Your task to perform on an android device: delete browsing data in the chrome app Image 0: 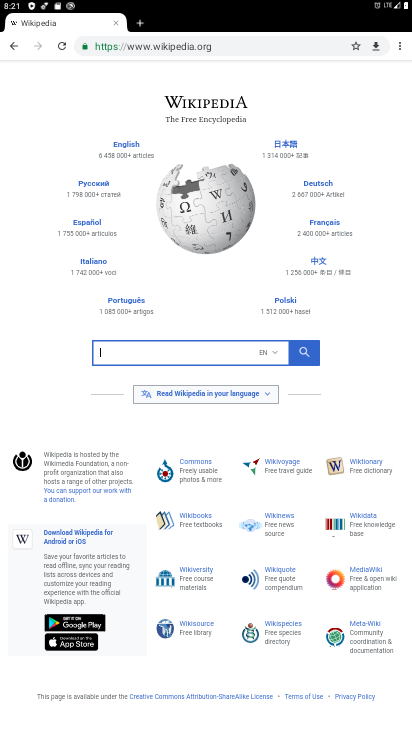
Step 0: press home button
Your task to perform on an android device: delete browsing data in the chrome app Image 1: 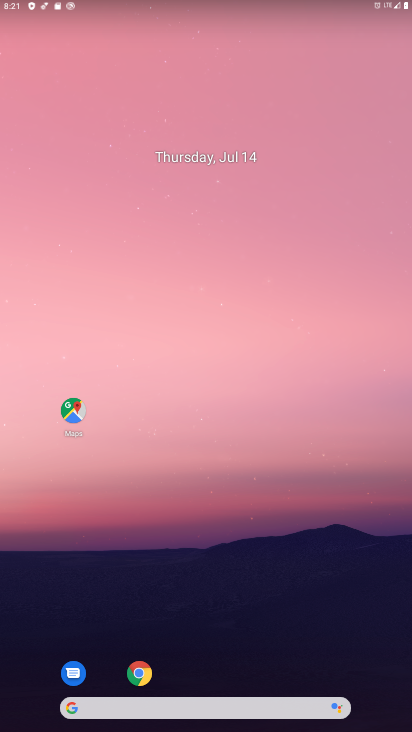
Step 1: click (142, 674)
Your task to perform on an android device: delete browsing data in the chrome app Image 2: 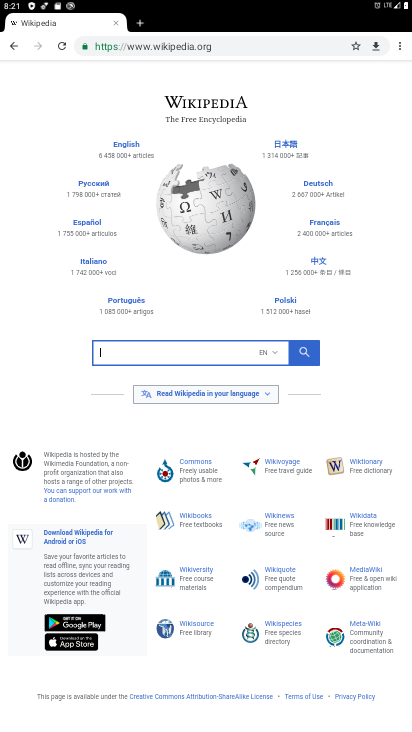
Step 2: click (400, 46)
Your task to perform on an android device: delete browsing data in the chrome app Image 3: 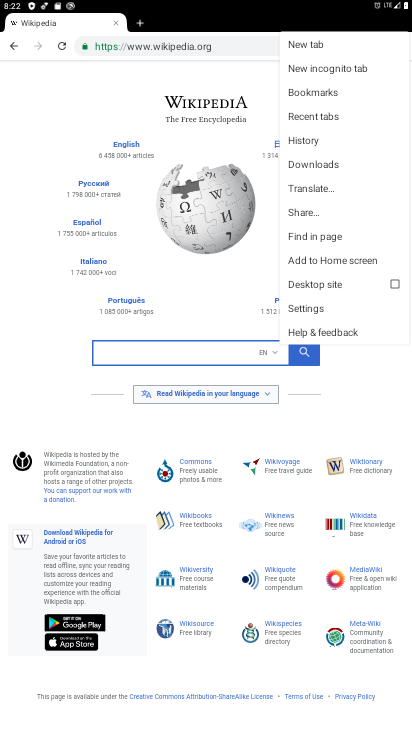
Step 3: click (319, 303)
Your task to perform on an android device: delete browsing data in the chrome app Image 4: 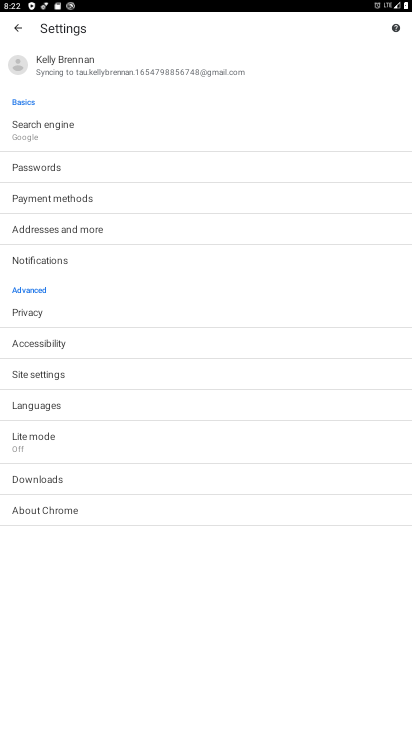
Step 4: click (35, 308)
Your task to perform on an android device: delete browsing data in the chrome app Image 5: 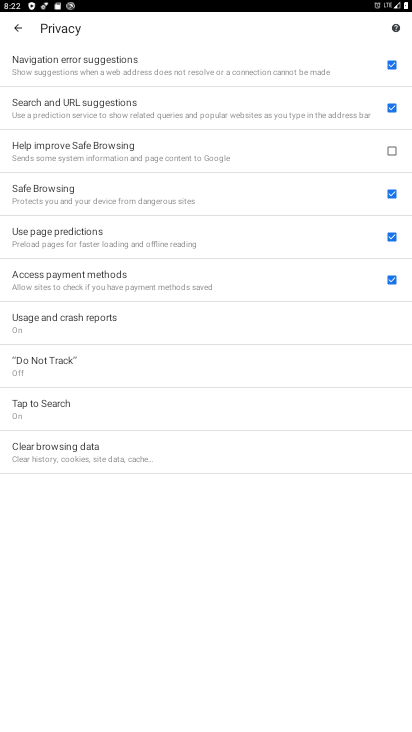
Step 5: click (56, 442)
Your task to perform on an android device: delete browsing data in the chrome app Image 6: 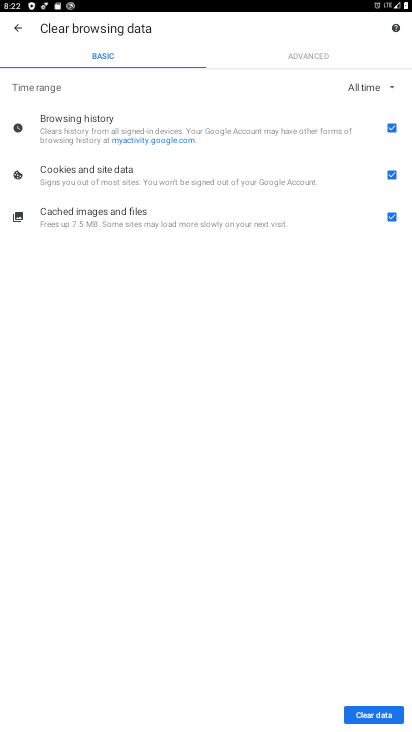
Step 6: click (355, 721)
Your task to perform on an android device: delete browsing data in the chrome app Image 7: 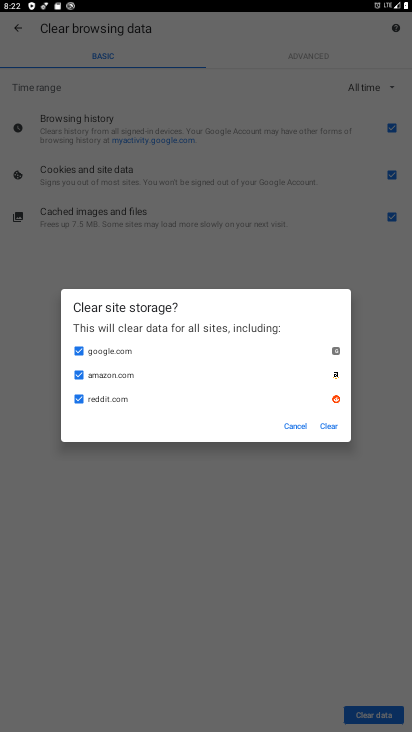
Step 7: click (326, 433)
Your task to perform on an android device: delete browsing data in the chrome app Image 8: 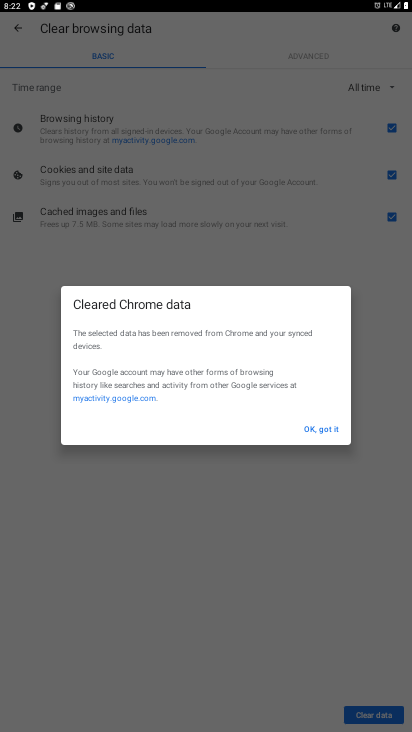
Step 8: click (326, 433)
Your task to perform on an android device: delete browsing data in the chrome app Image 9: 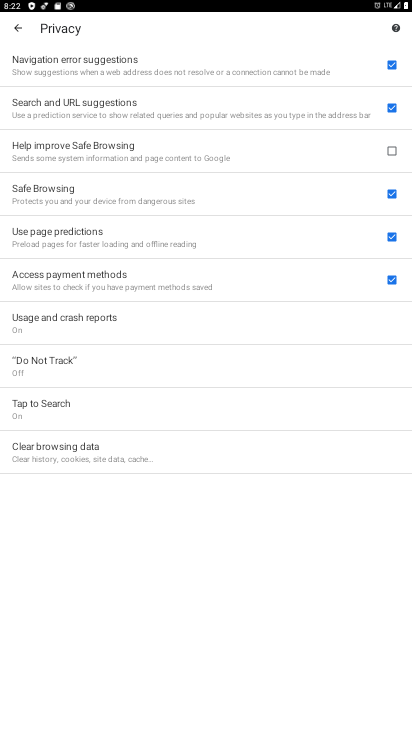
Step 9: task complete